Your task to perform on an android device: turn notification dots on Image 0: 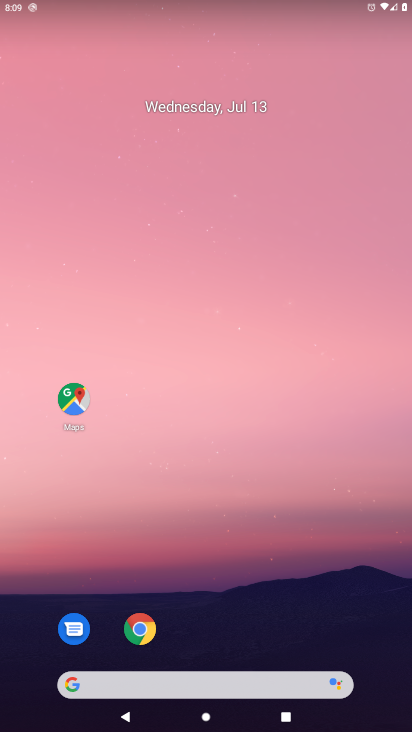
Step 0: drag from (46, 715) to (265, 111)
Your task to perform on an android device: turn notification dots on Image 1: 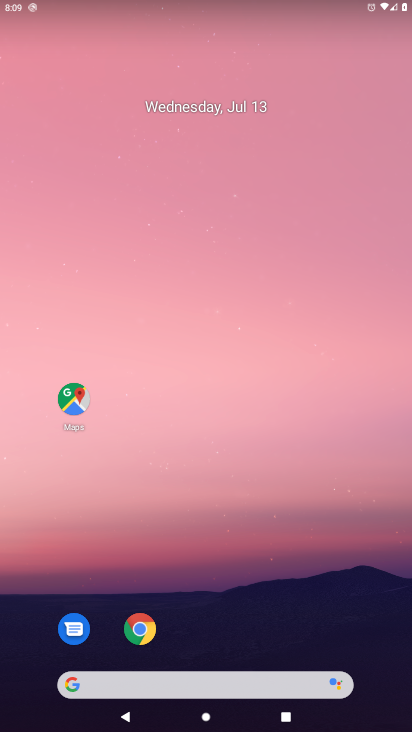
Step 1: task complete